Your task to perform on an android device: Open Amazon Image 0: 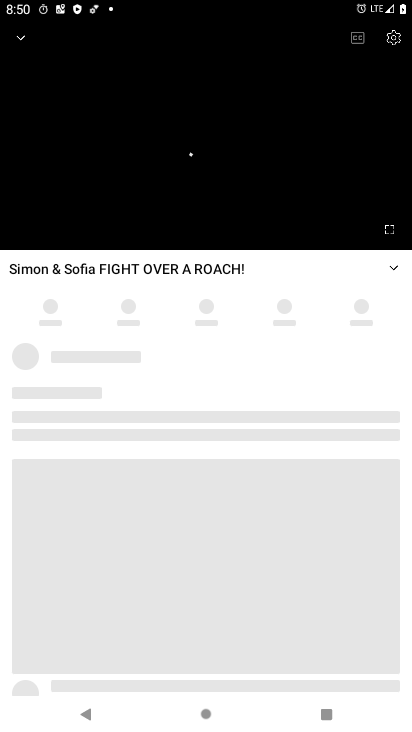
Step 0: press home button
Your task to perform on an android device: Open Amazon Image 1: 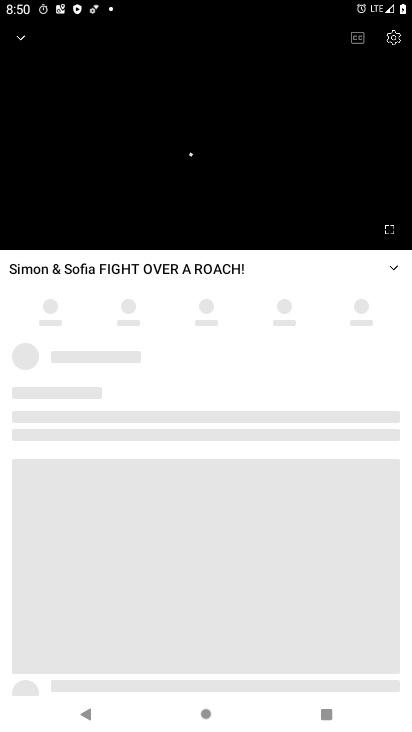
Step 1: click (122, 603)
Your task to perform on an android device: Open Amazon Image 2: 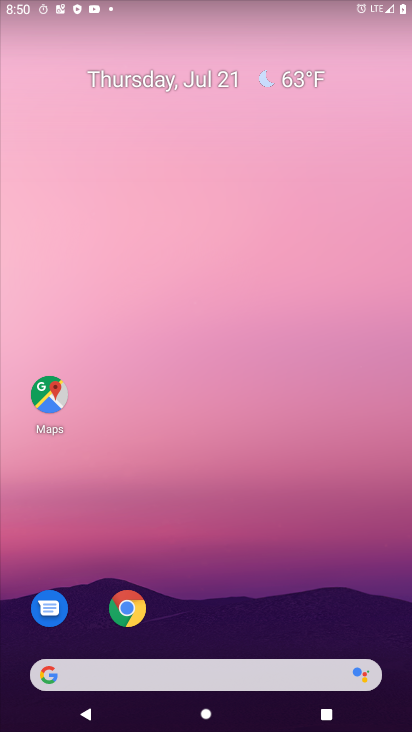
Step 2: click (119, 620)
Your task to perform on an android device: Open Amazon Image 3: 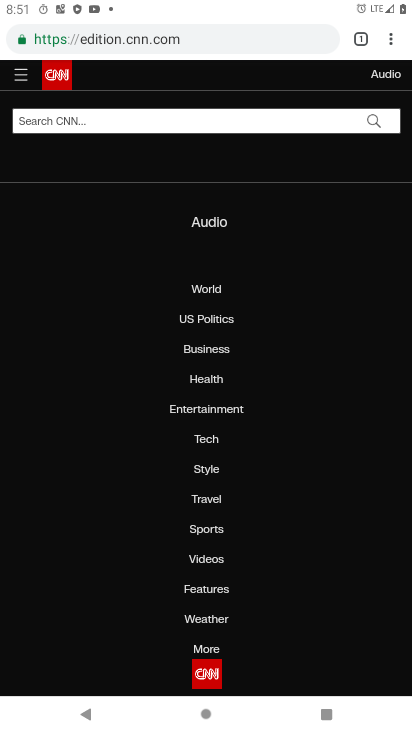
Step 3: type "Amazon"
Your task to perform on an android device: Open Amazon Image 4: 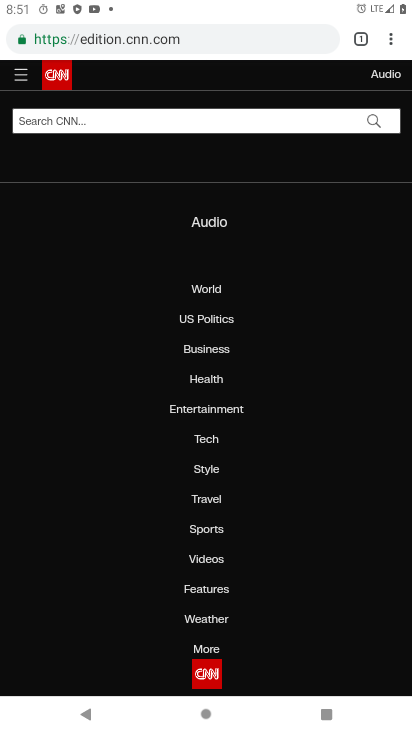
Step 4: click (136, 46)
Your task to perform on an android device: Open Amazon Image 5: 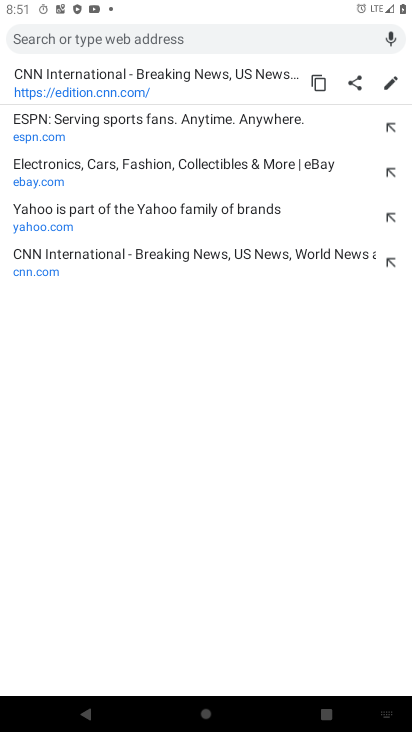
Step 5: type "Amazon"
Your task to perform on an android device: Open Amazon Image 6: 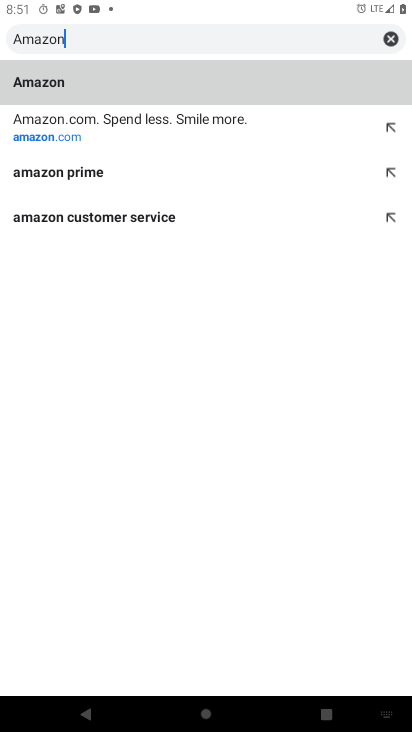
Step 6: type ""
Your task to perform on an android device: Open Amazon Image 7: 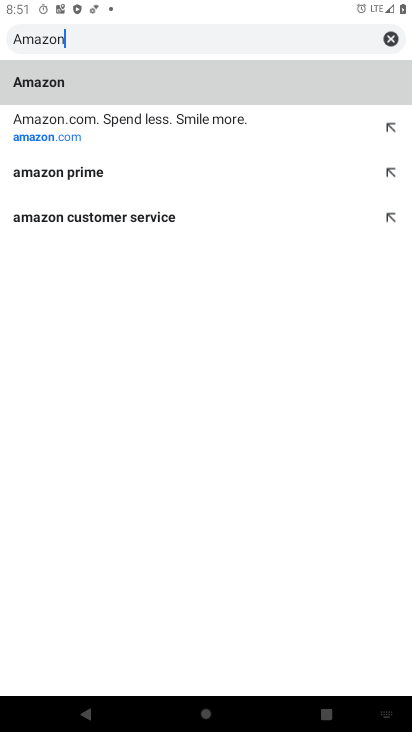
Step 7: click (38, 123)
Your task to perform on an android device: Open Amazon Image 8: 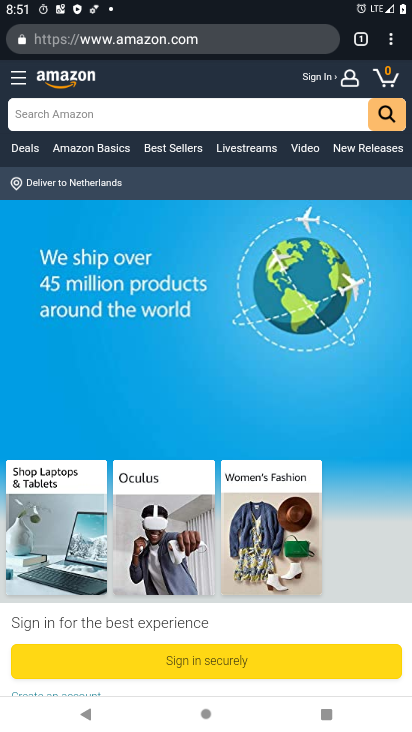
Step 8: task complete